Your task to perform on an android device: Go to Android settings Image 0: 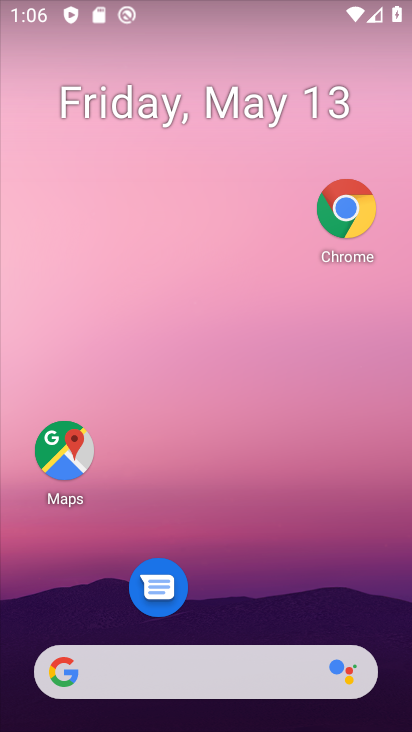
Step 0: drag from (198, 609) to (285, 118)
Your task to perform on an android device: Go to Android settings Image 1: 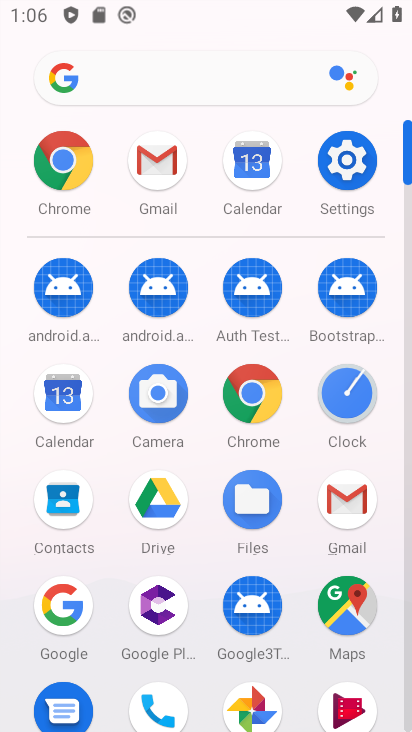
Step 1: click (347, 146)
Your task to perform on an android device: Go to Android settings Image 2: 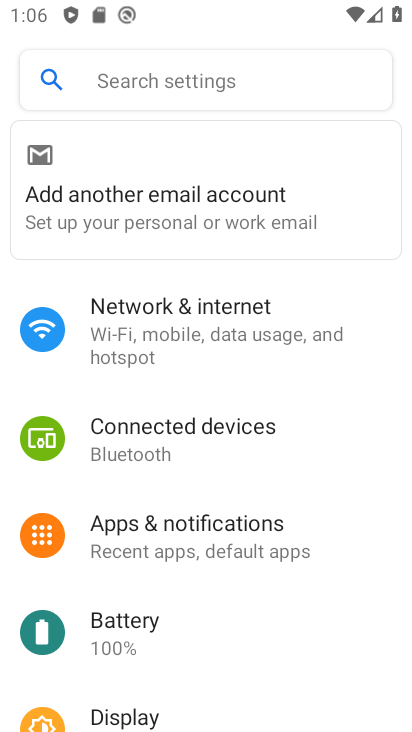
Step 2: drag from (175, 678) to (259, 132)
Your task to perform on an android device: Go to Android settings Image 3: 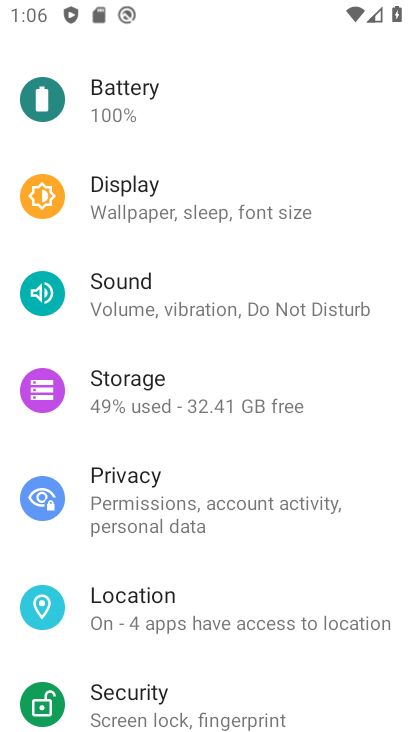
Step 3: drag from (189, 634) to (295, 66)
Your task to perform on an android device: Go to Android settings Image 4: 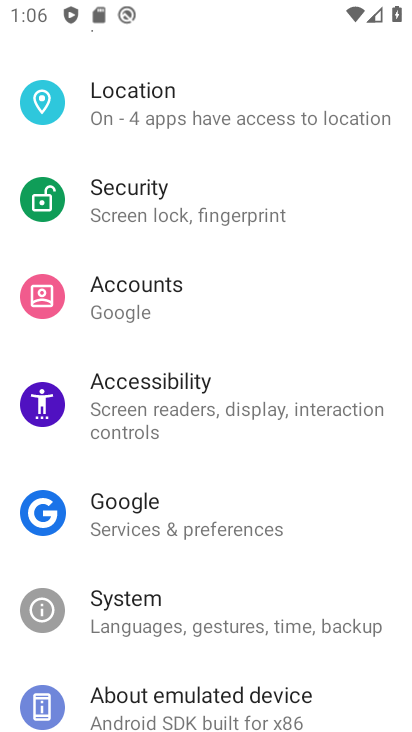
Step 4: drag from (150, 626) to (289, 94)
Your task to perform on an android device: Go to Android settings Image 5: 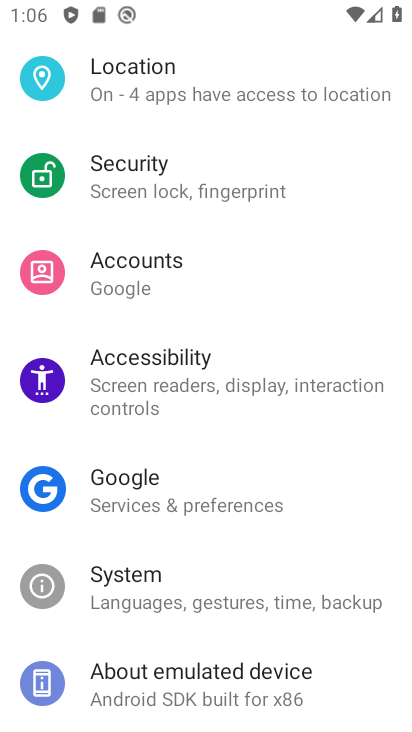
Step 5: click (171, 697)
Your task to perform on an android device: Go to Android settings Image 6: 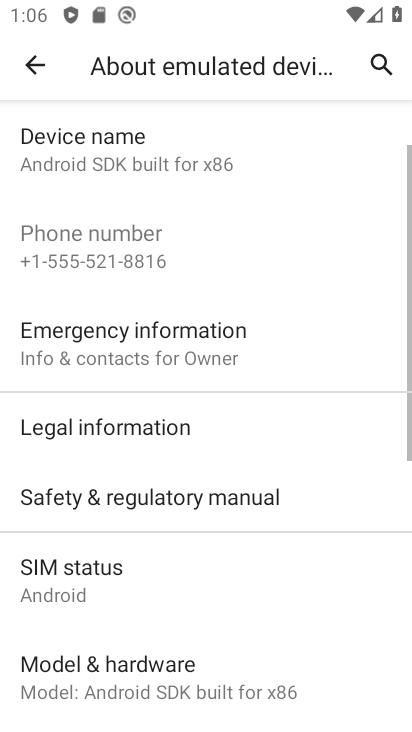
Step 6: drag from (176, 629) to (284, 117)
Your task to perform on an android device: Go to Android settings Image 7: 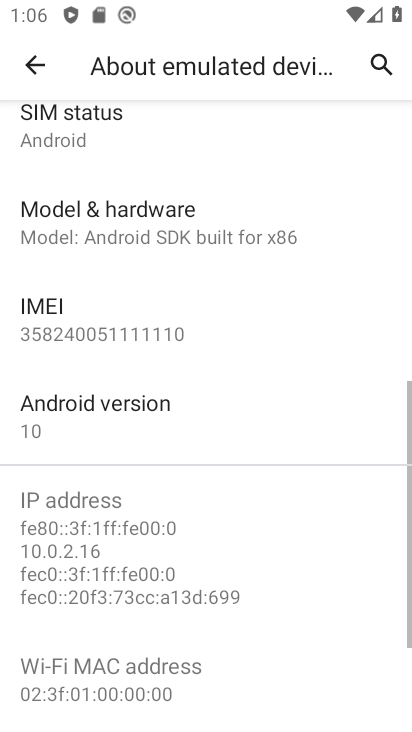
Step 7: click (60, 412)
Your task to perform on an android device: Go to Android settings Image 8: 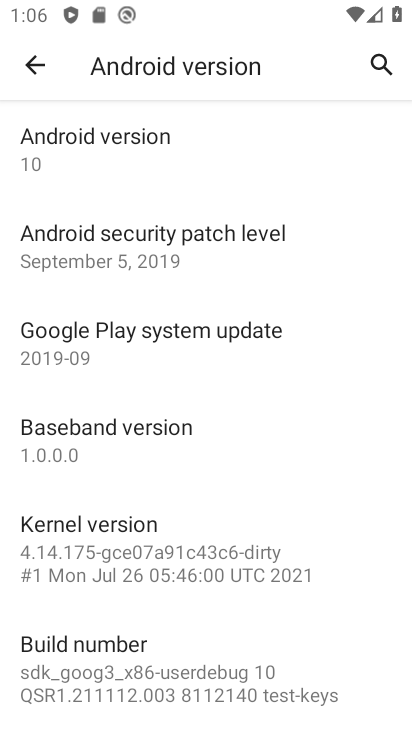
Step 8: task complete